Your task to perform on an android device: What's the latest video from GameTrailers? Image 0: 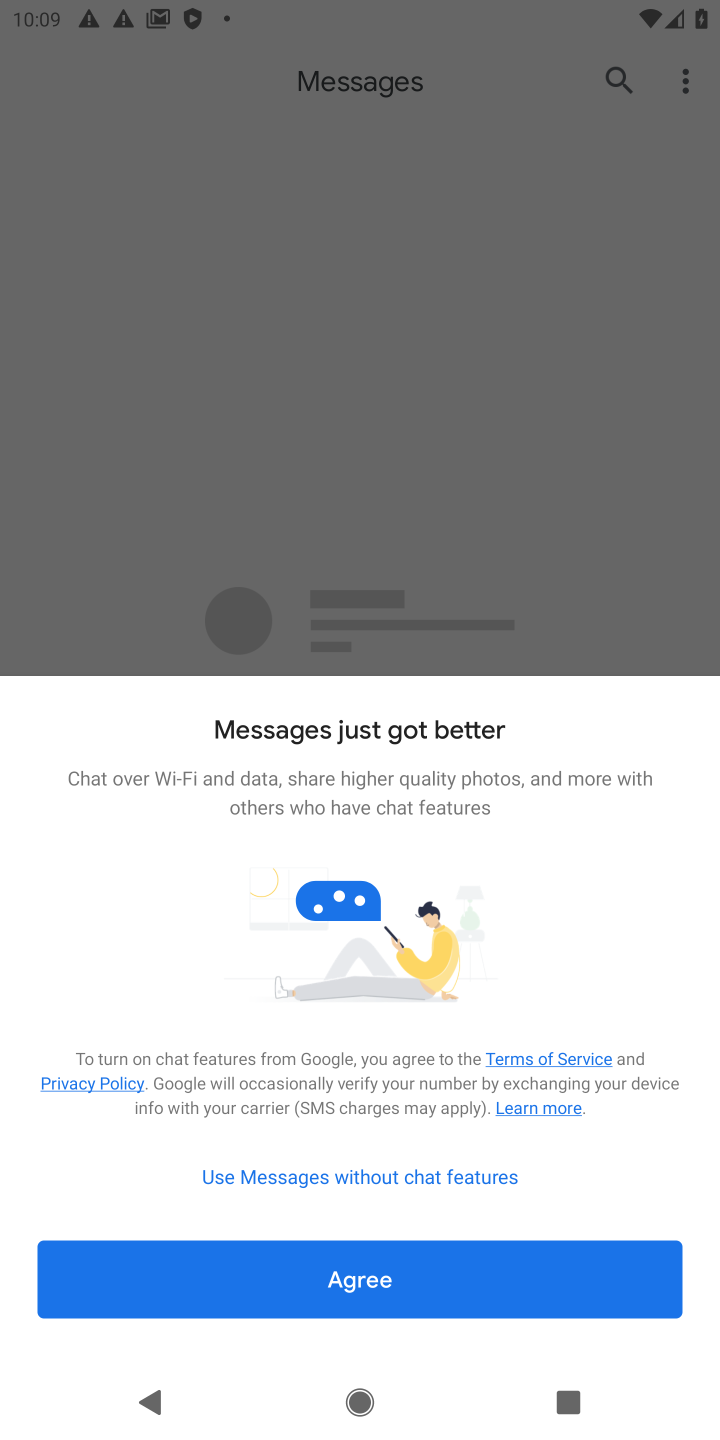
Step 0: press home button
Your task to perform on an android device: What's the latest video from GameTrailers? Image 1: 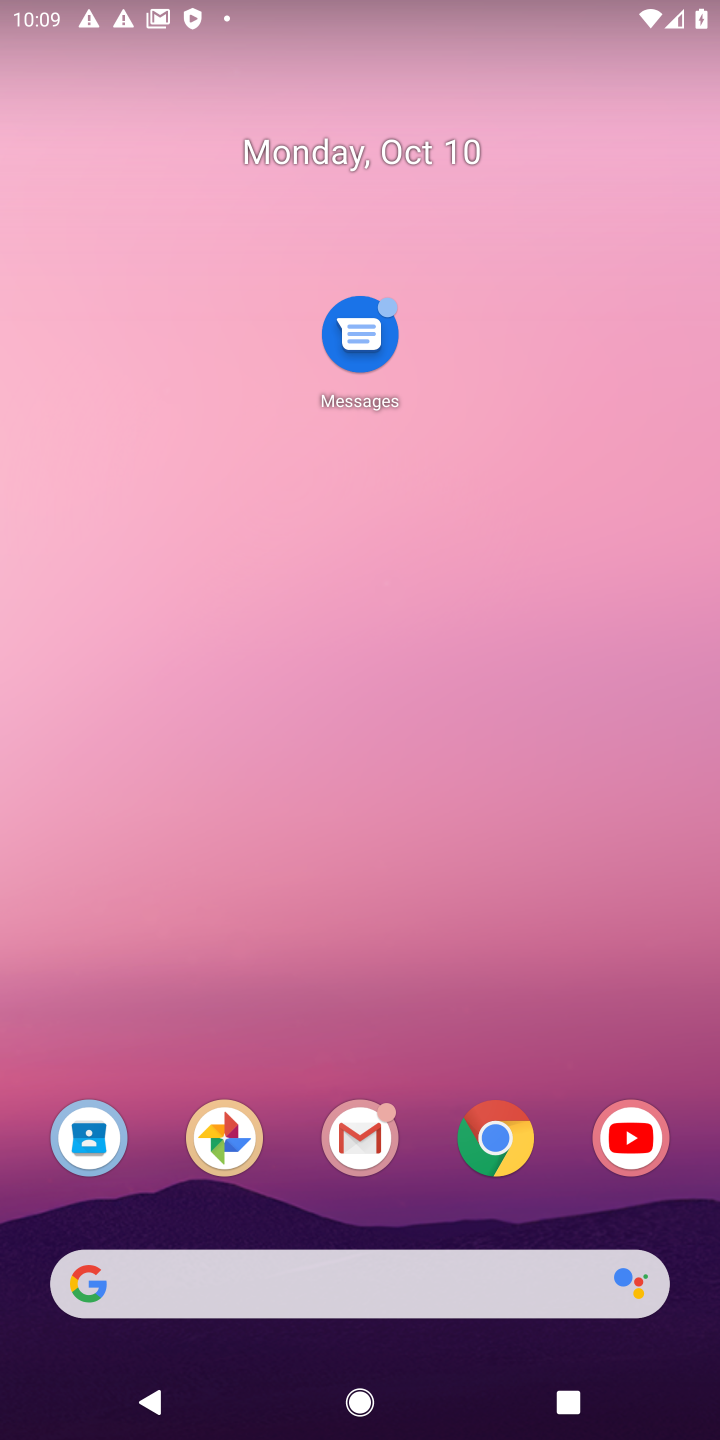
Step 1: click (499, 1136)
Your task to perform on an android device: What's the latest video from GameTrailers? Image 2: 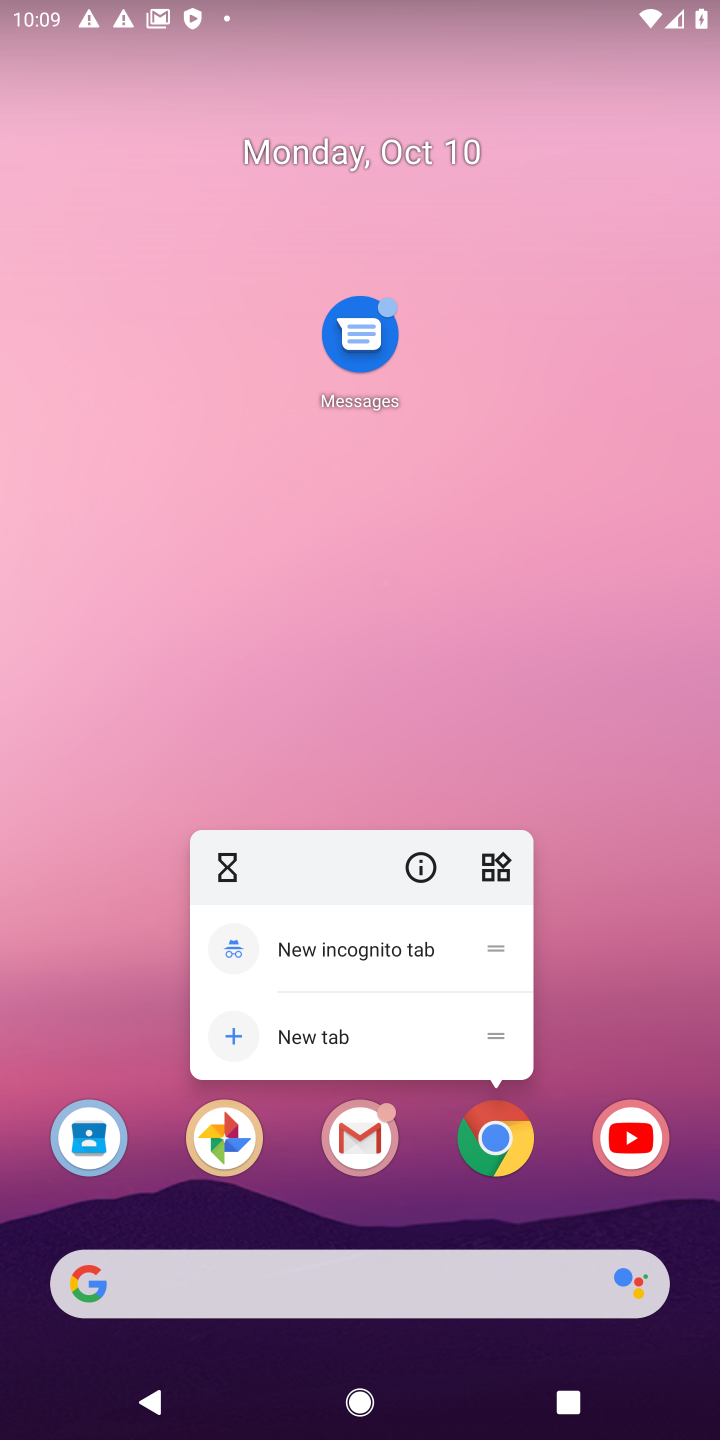
Step 2: click (487, 1151)
Your task to perform on an android device: What's the latest video from GameTrailers? Image 3: 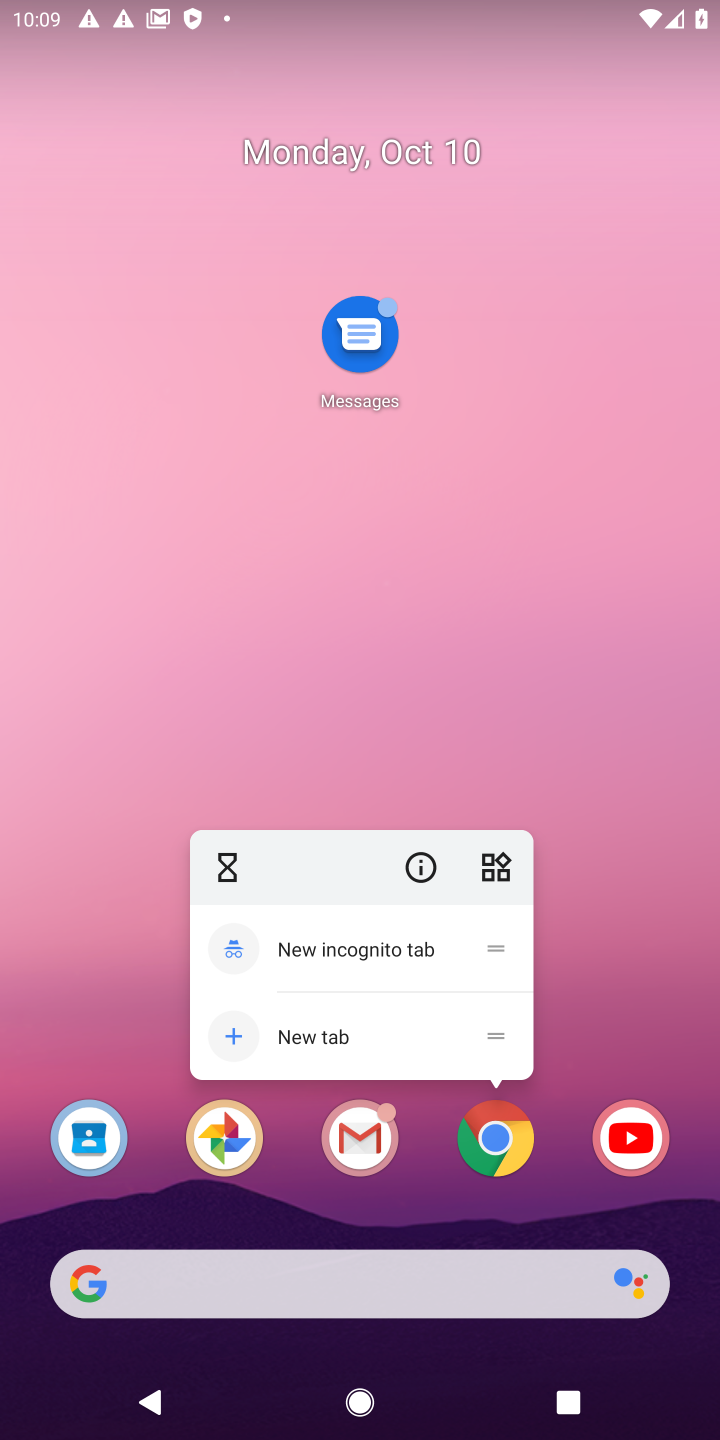
Step 3: click (502, 1141)
Your task to perform on an android device: What's the latest video from GameTrailers? Image 4: 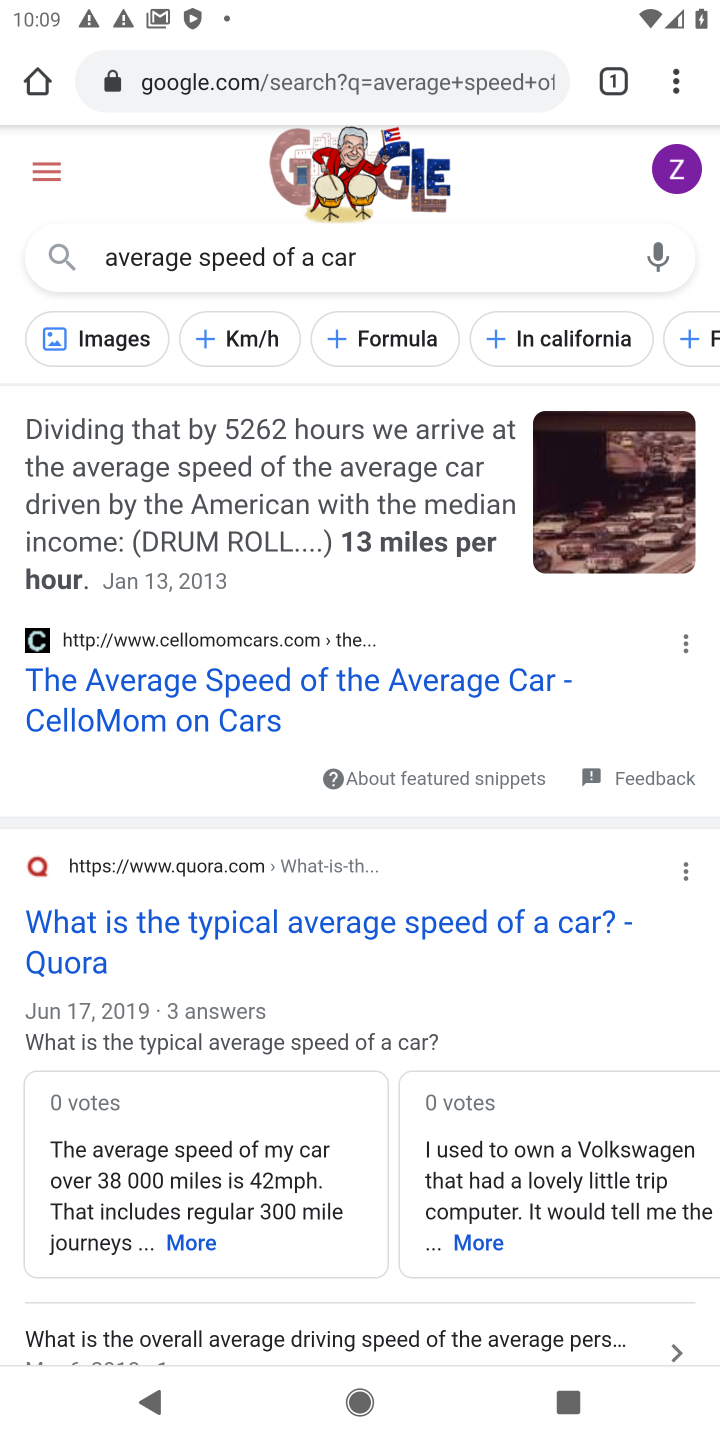
Step 4: click (388, 83)
Your task to perform on an android device: What's the latest video from GameTrailers? Image 5: 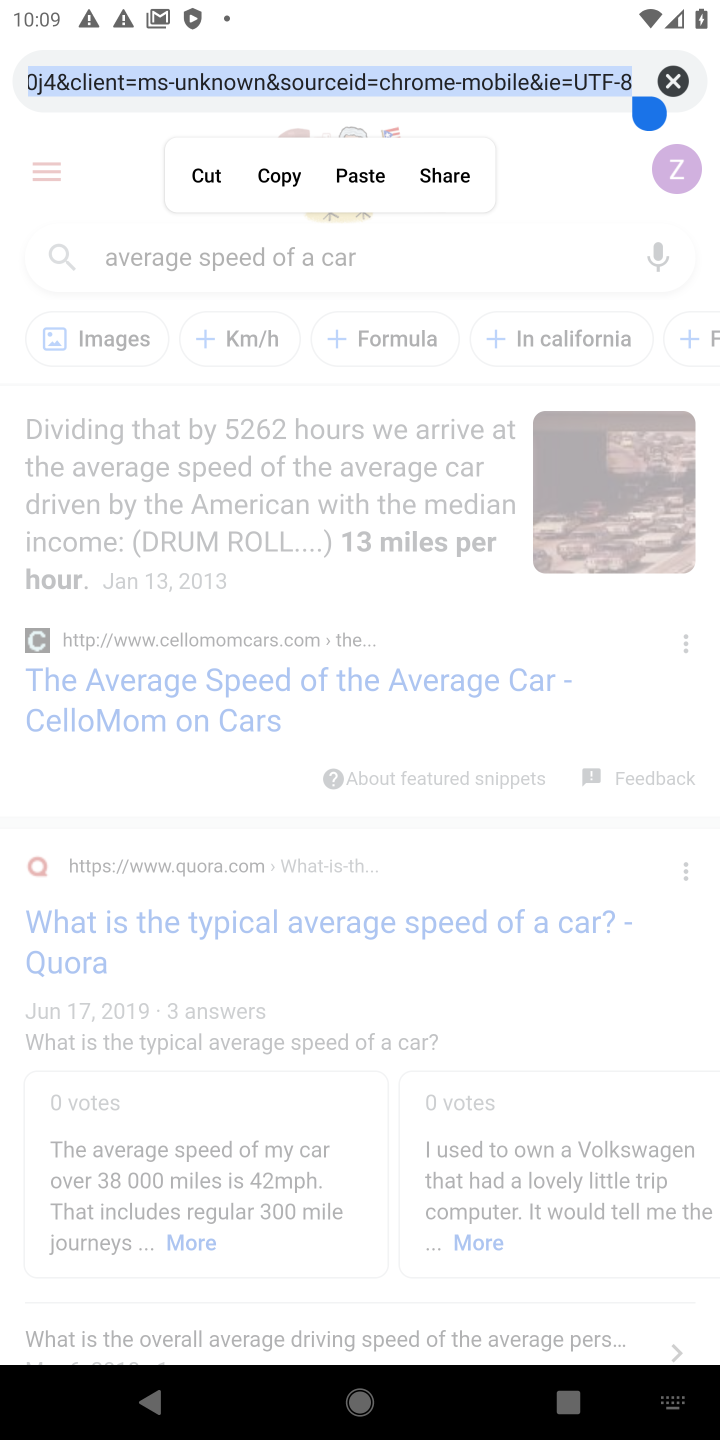
Step 5: type "game trailers"
Your task to perform on an android device: What's the latest video from GameTrailers? Image 6: 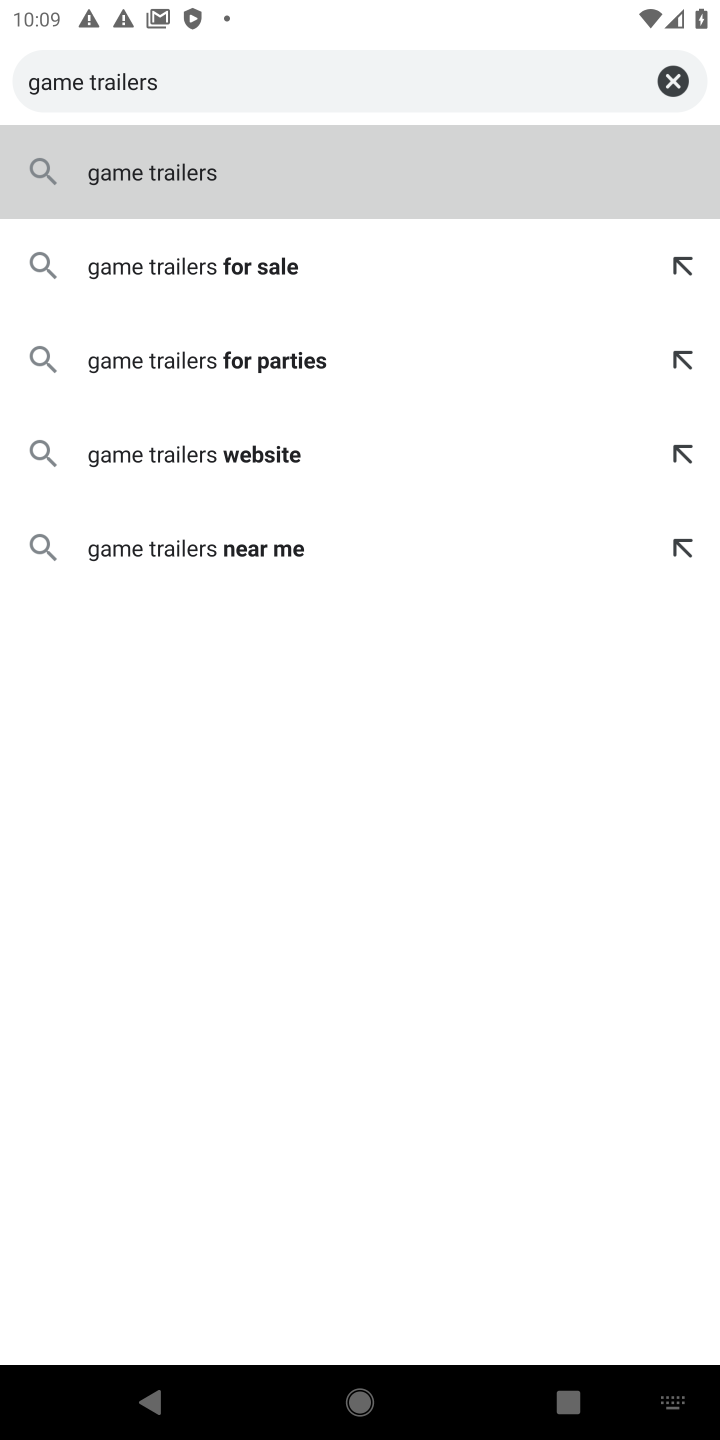
Step 6: press enter
Your task to perform on an android device: What's the latest video from GameTrailers? Image 7: 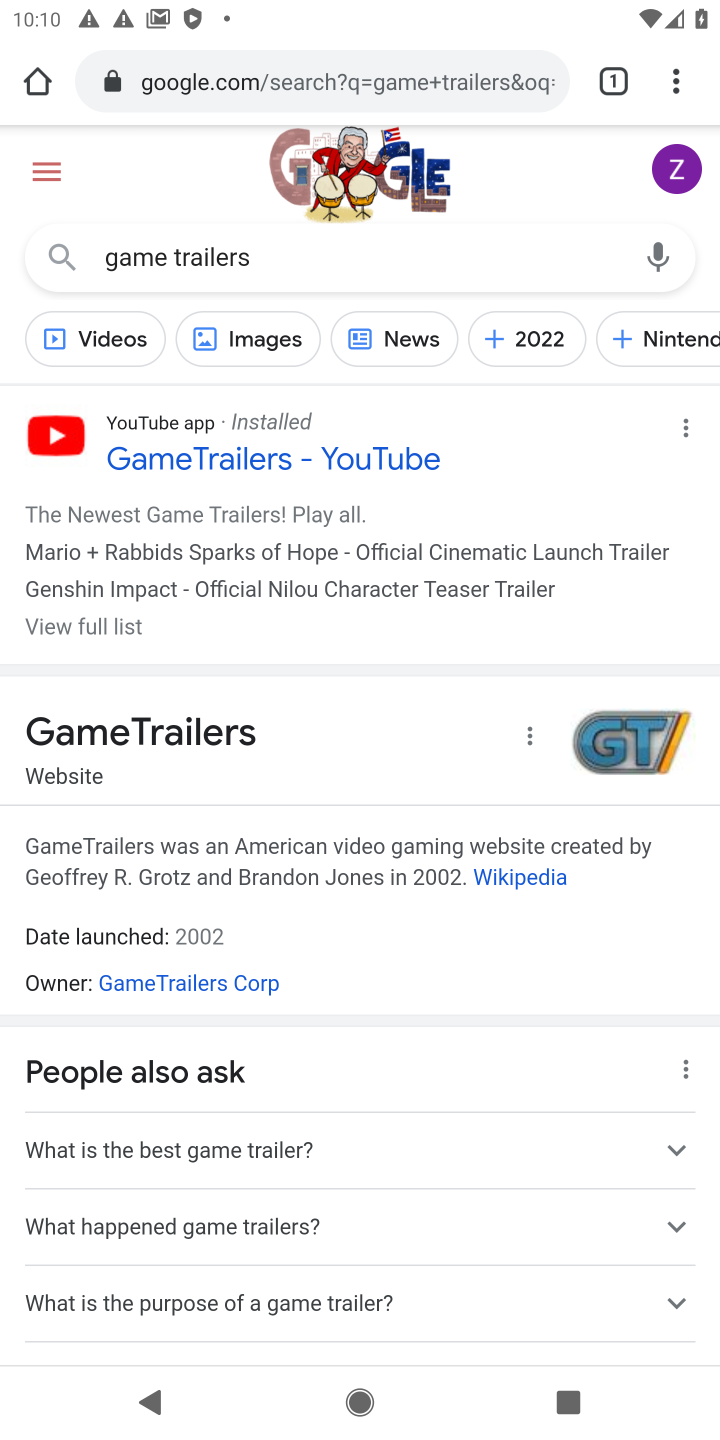
Step 7: click (357, 457)
Your task to perform on an android device: What's the latest video from GameTrailers? Image 8: 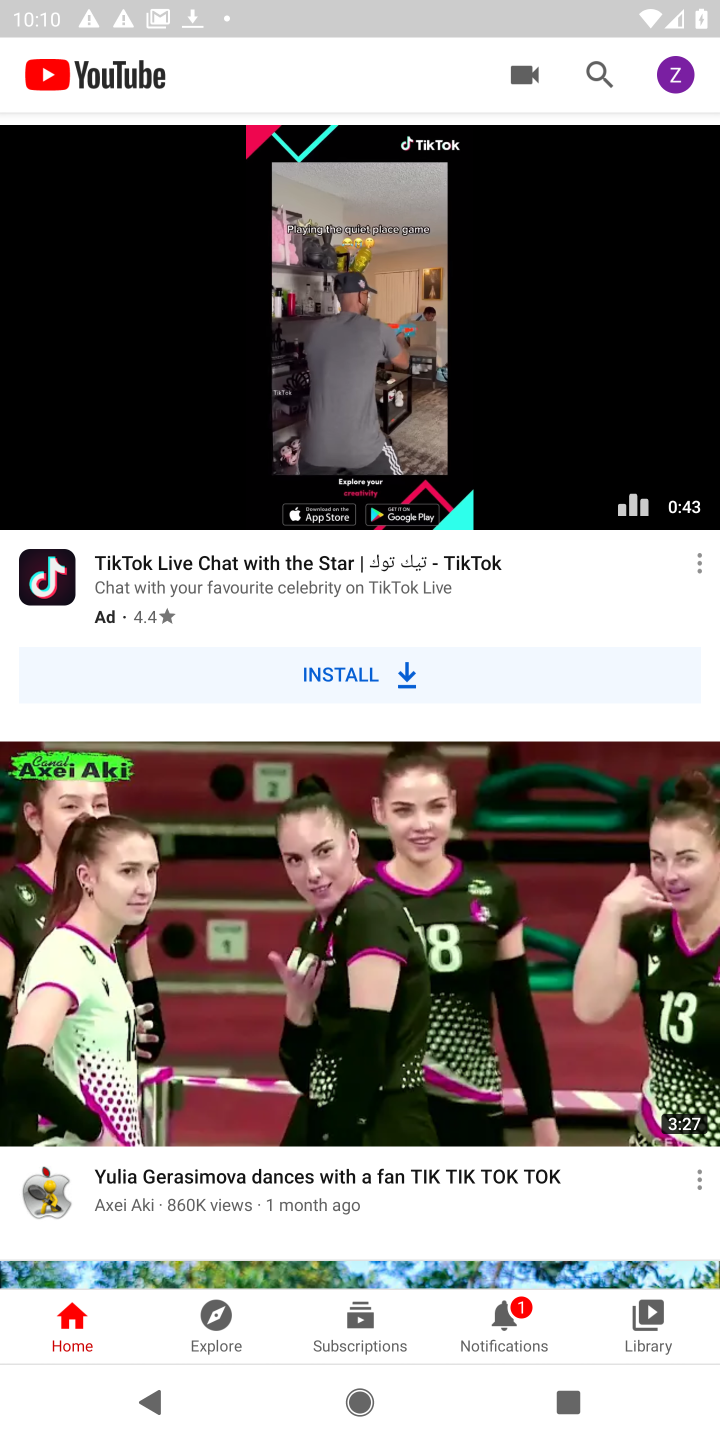
Step 8: click (598, 68)
Your task to perform on an android device: What's the latest video from GameTrailers? Image 9: 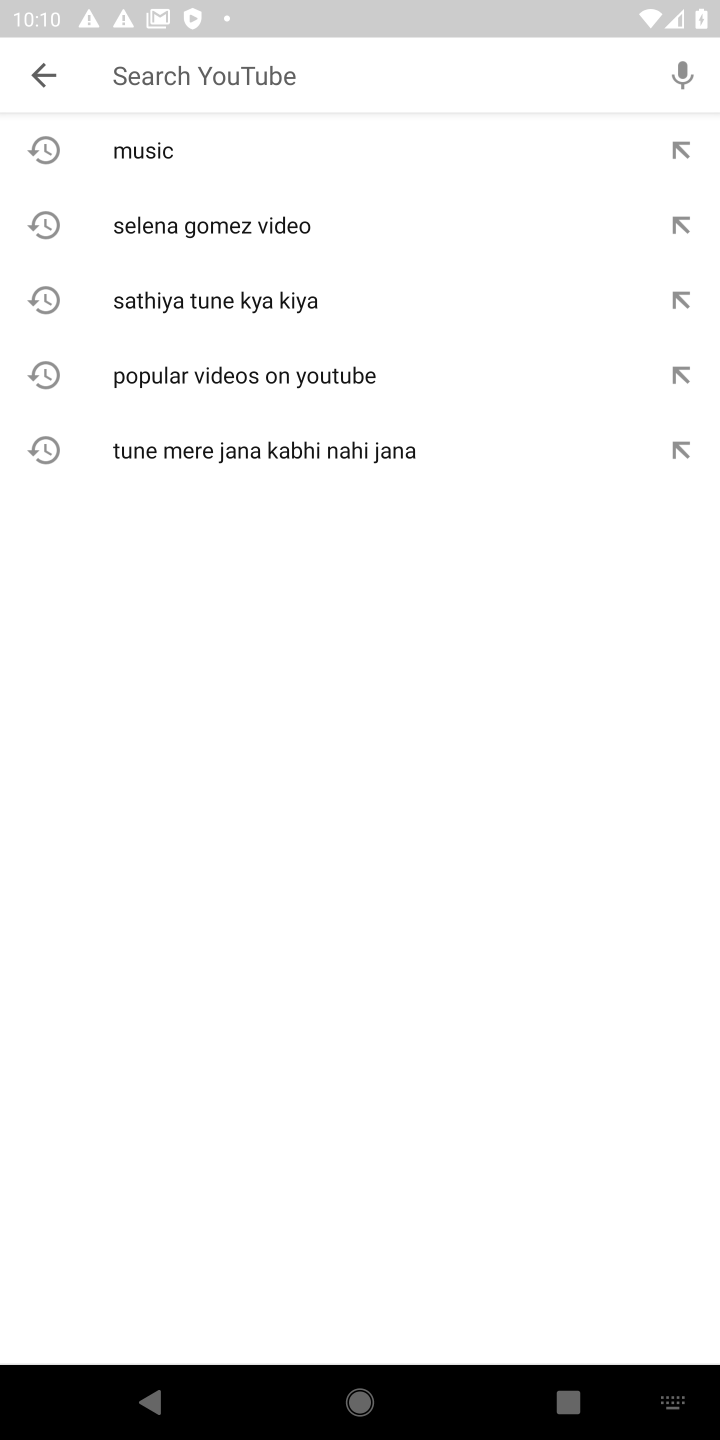
Step 9: type "game trailers"
Your task to perform on an android device: What's the latest video from GameTrailers? Image 10: 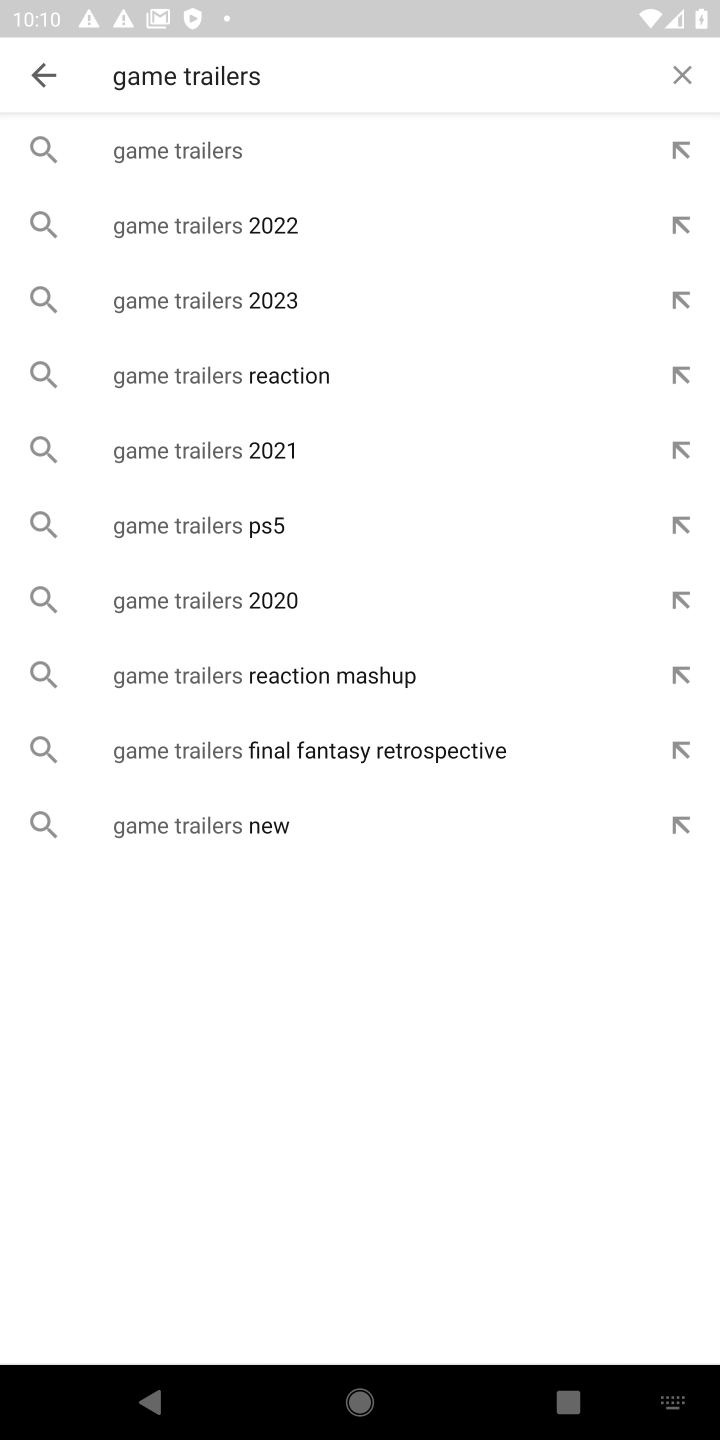
Step 10: type ""
Your task to perform on an android device: What's the latest video from GameTrailers? Image 11: 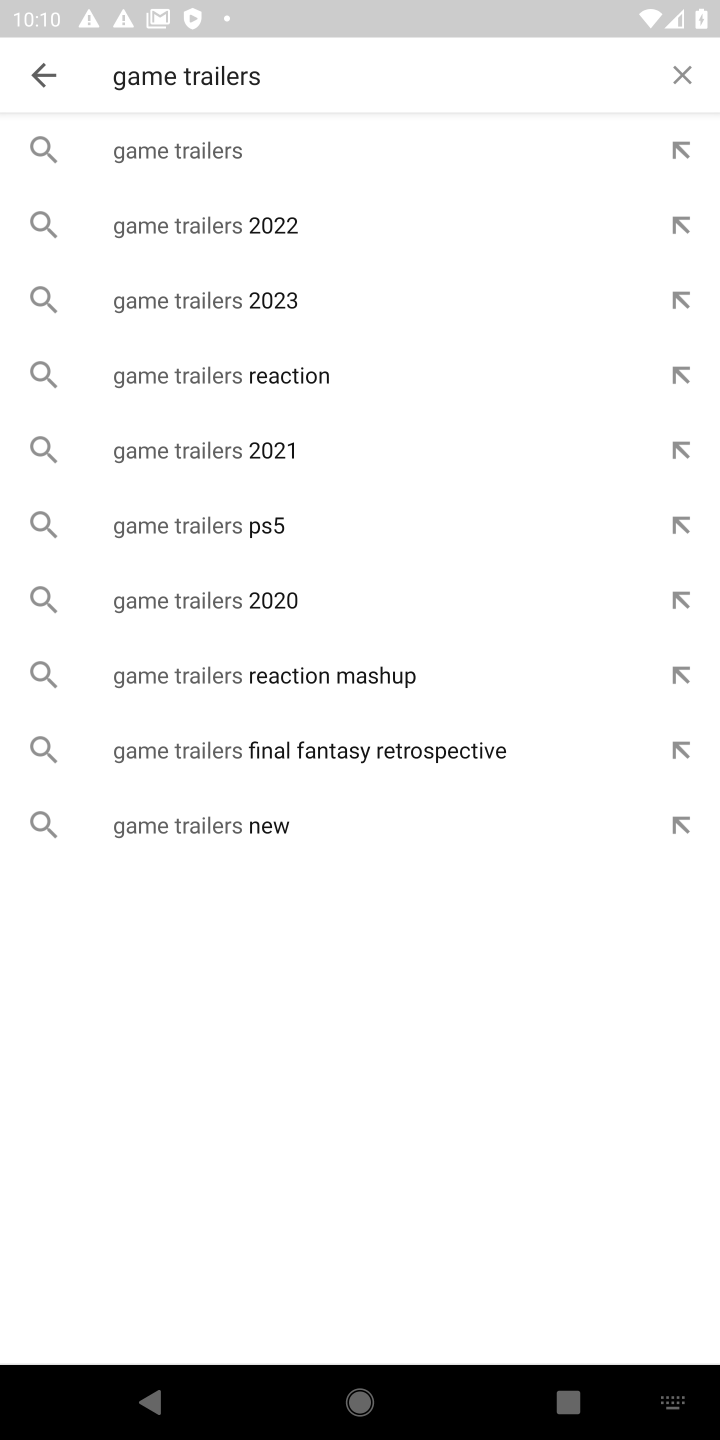
Step 11: press enter
Your task to perform on an android device: What's the latest video from GameTrailers? Image 12: 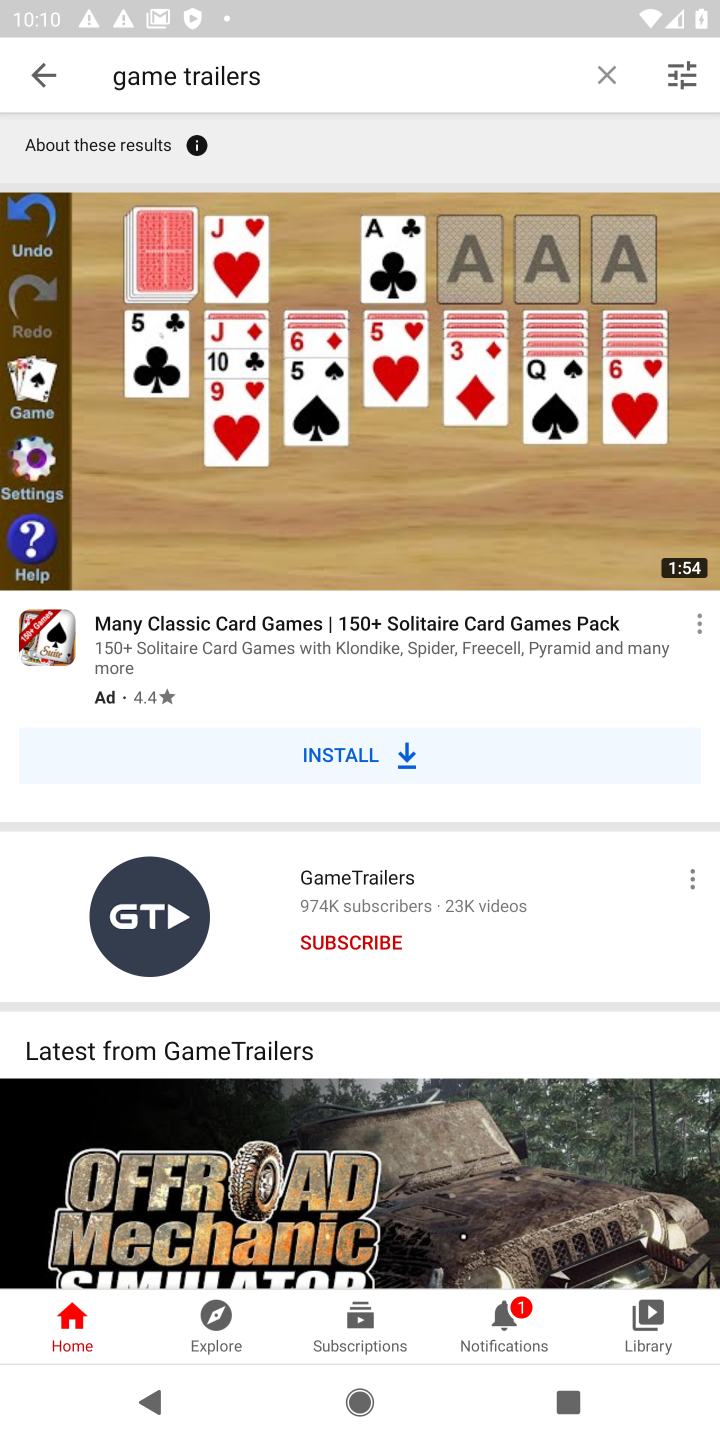
Step 12: click (368, 880)
Your task to perform on an android device: What's the latest video from GameTrailers? Image 13: 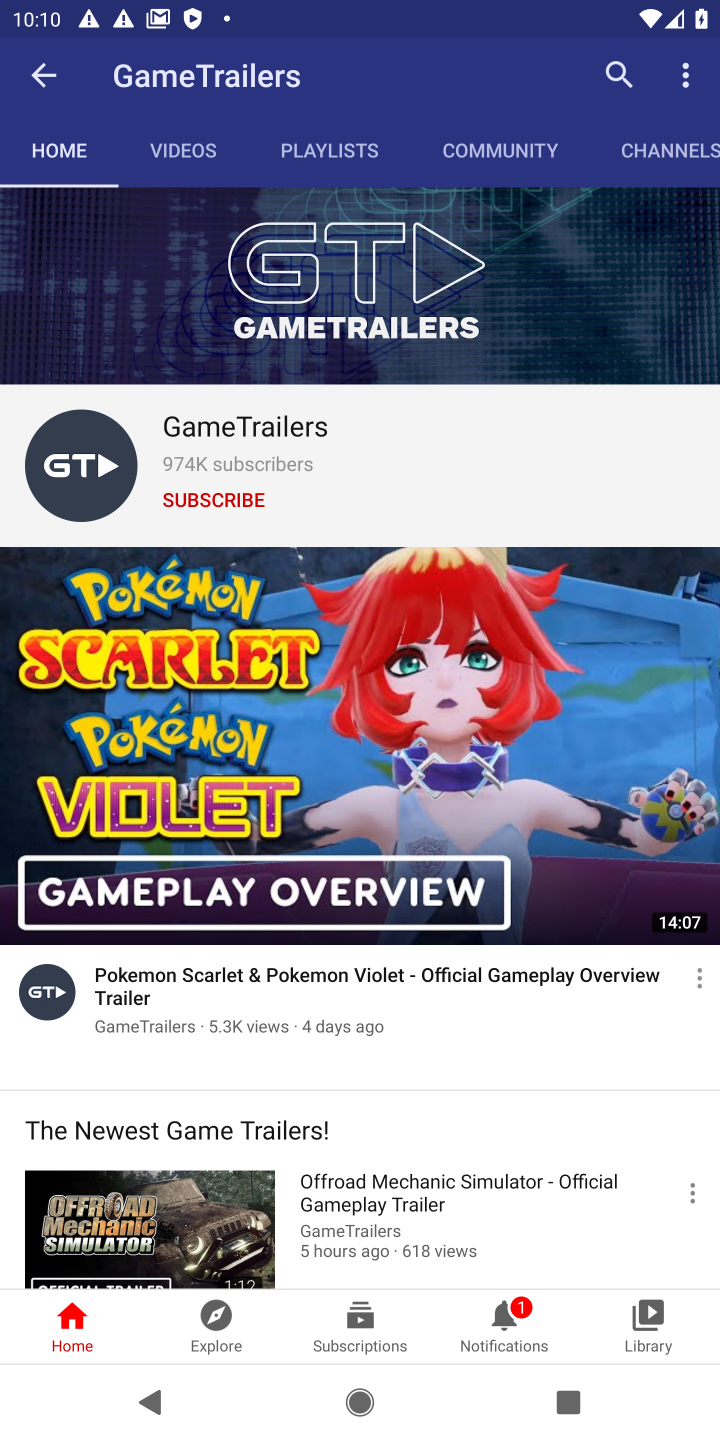
Step 13: click (211, 160)
Your task to perform on an android device: What's the latest video from GameTrailers? Image 14: 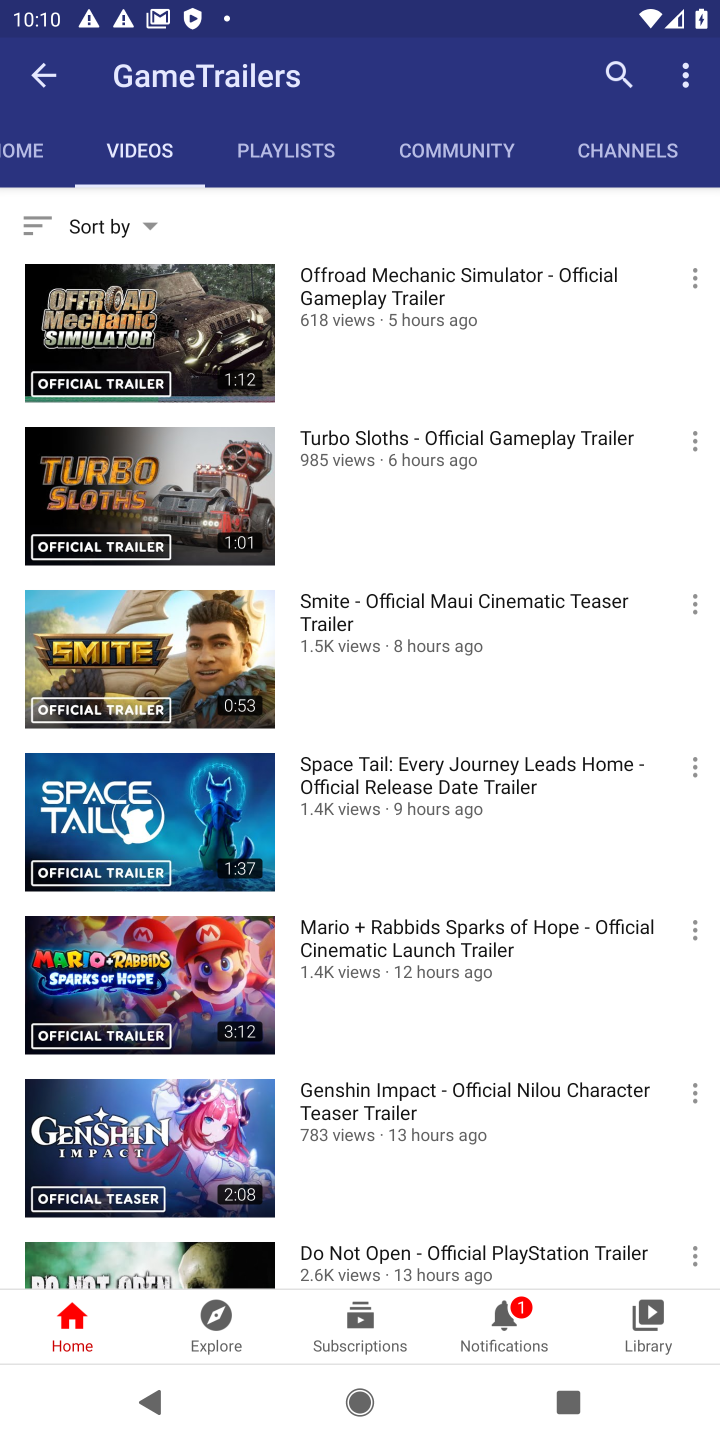
Step 14: click (328, 356)
Your task to perform on an android device: What's the latest video from GameTrailers? Image 15: 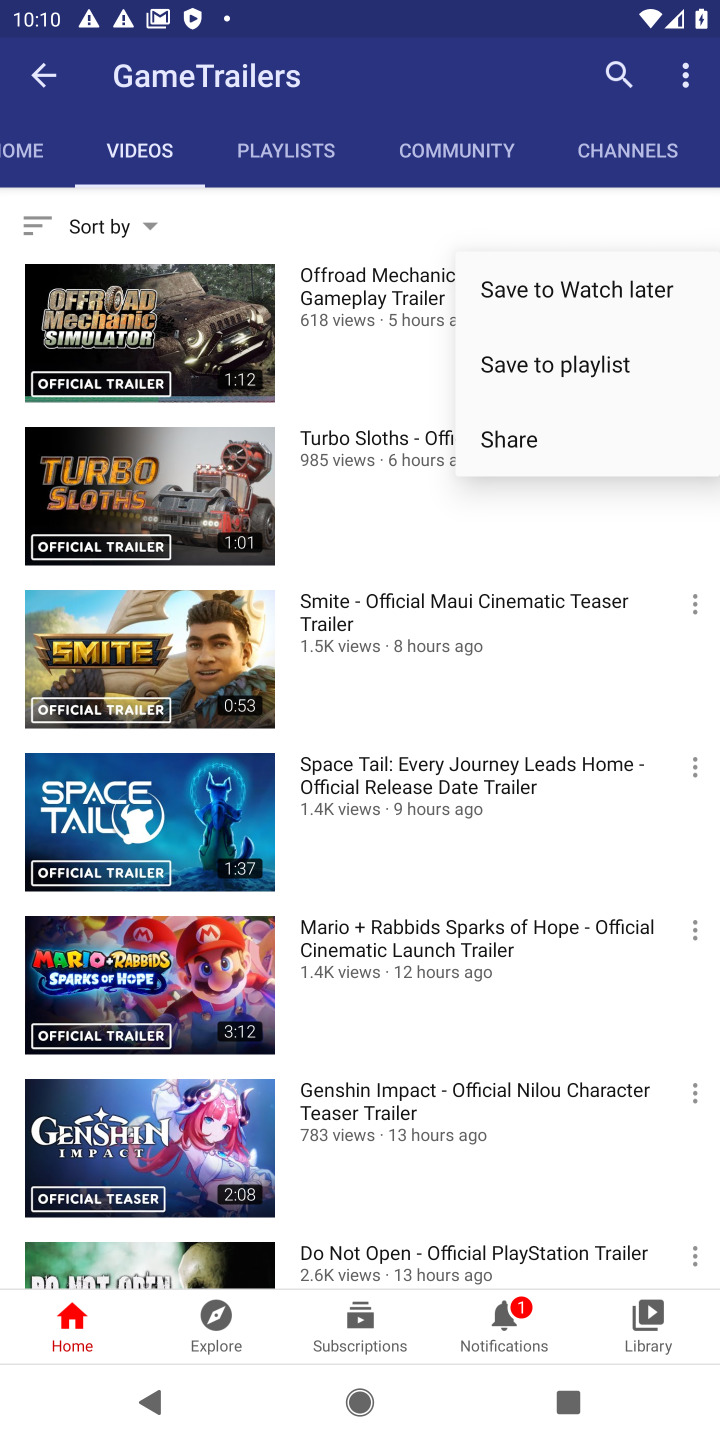
Step 15: click (167, 348)
Your task to perform on an android device: What's the latest video from GameTrailers? Image 16: 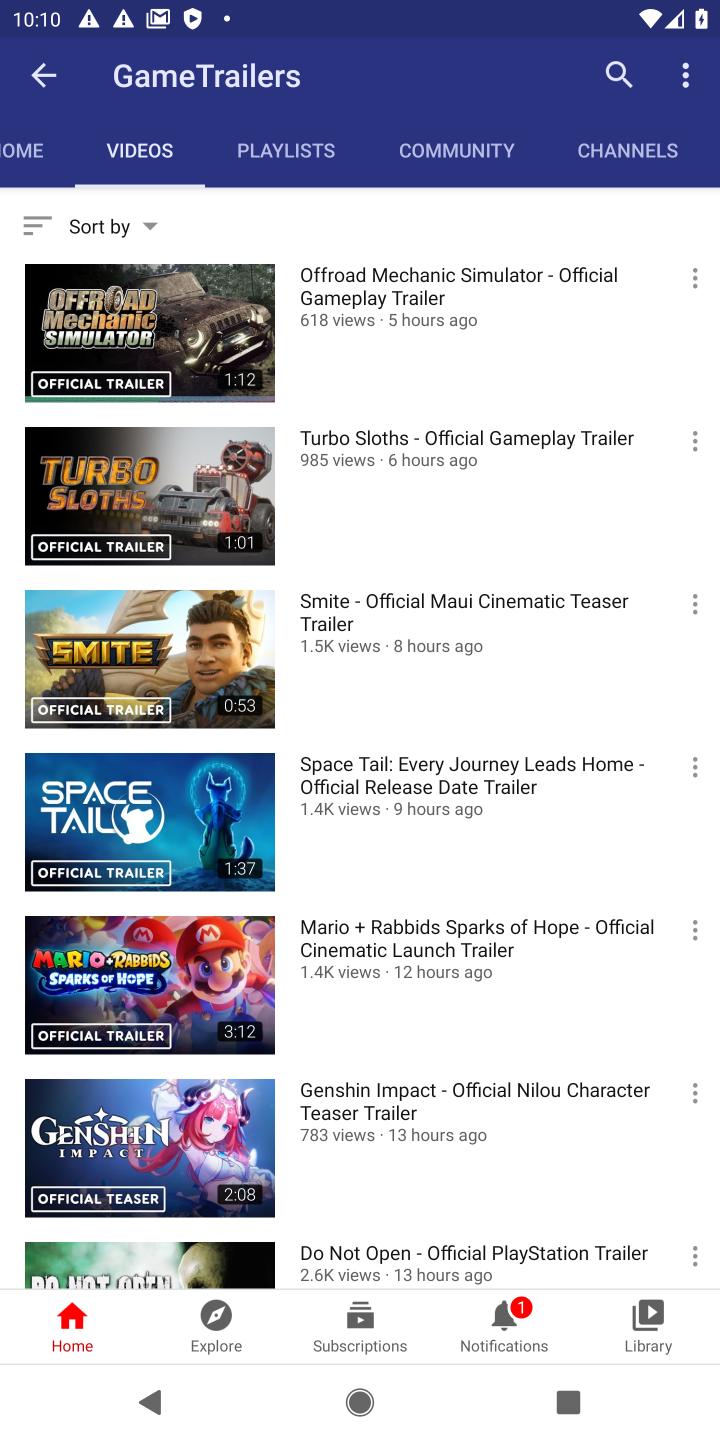
Step 16: click (139, 331)
Your task to perform on an android device: What's the latest video from GameTrailers? Image 17: 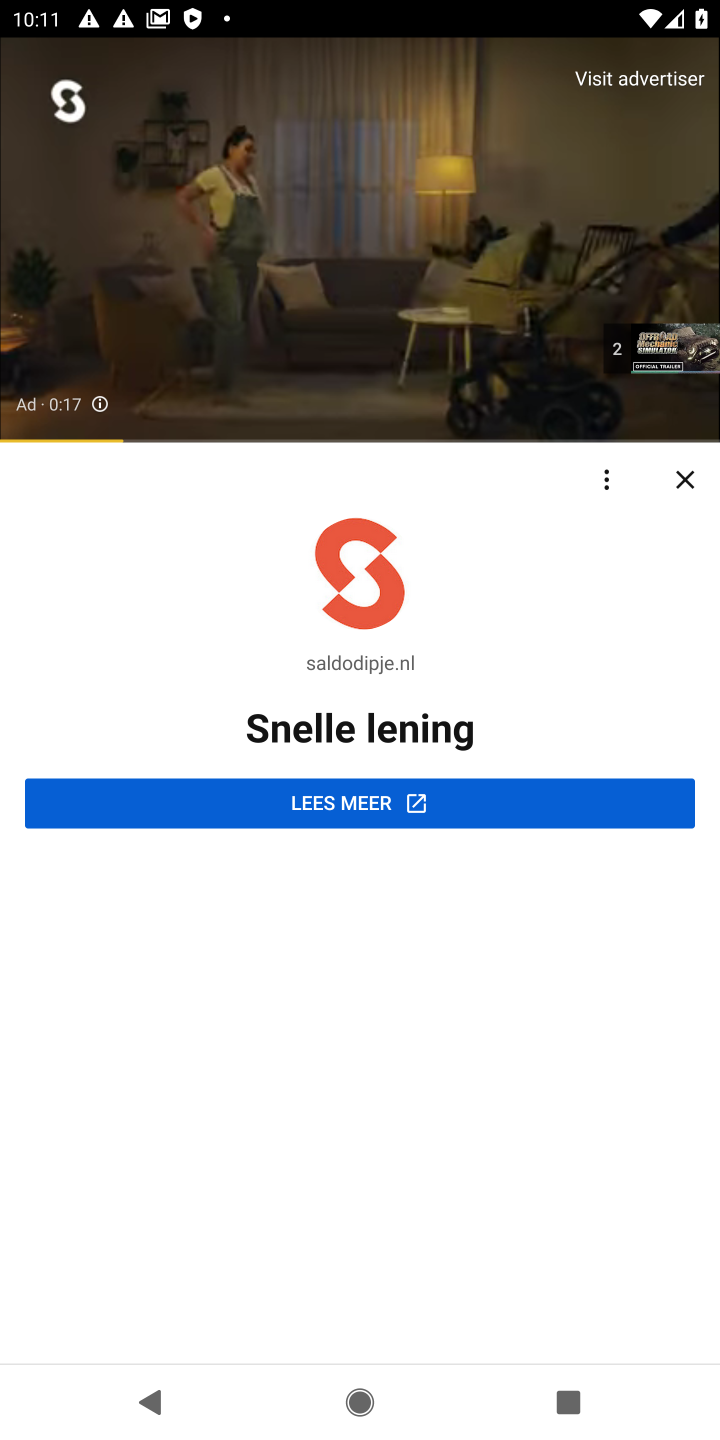
Step 17: click (686, 479)
Your task to perform on an android device: What's the latest video from GameTrailers? Image 18: 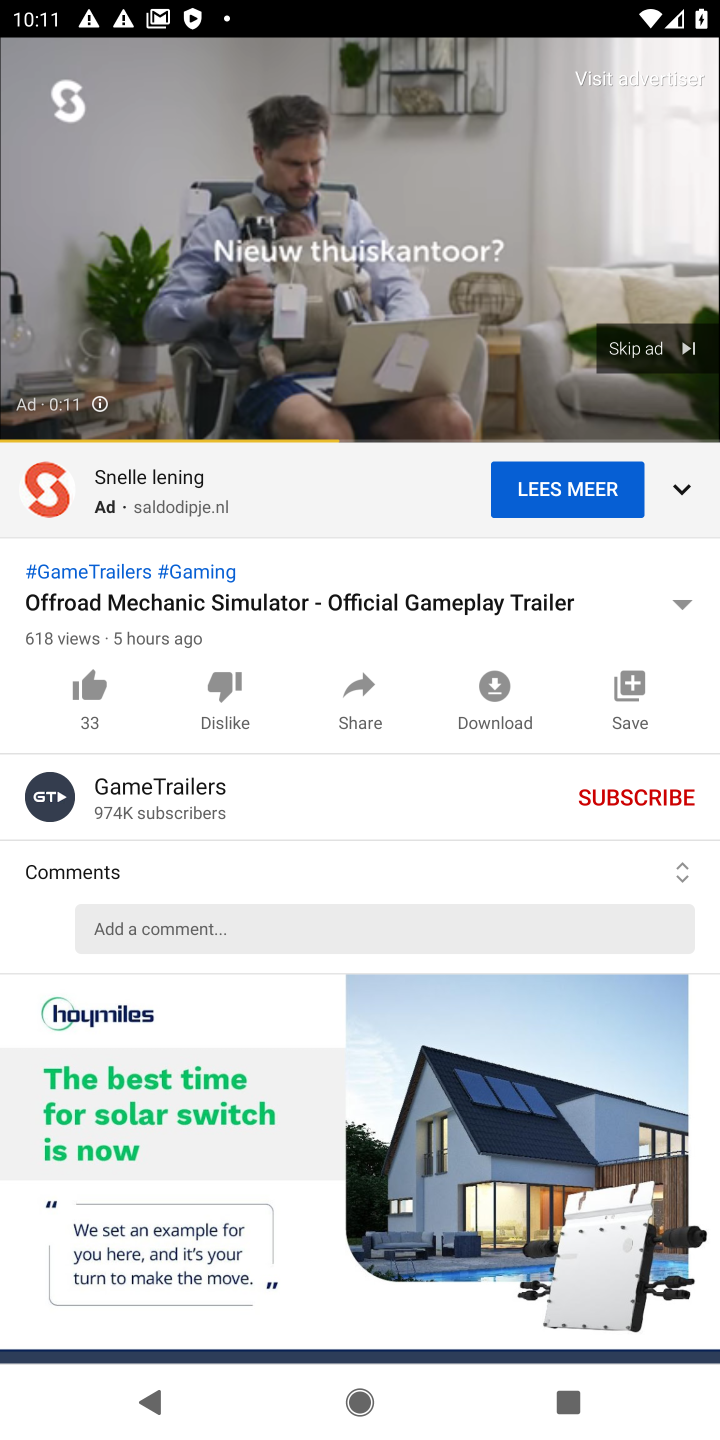
Step 18: click (667, 356)
Your task to perform on an android device: What's the latest video from GameTrailers? Image 19: 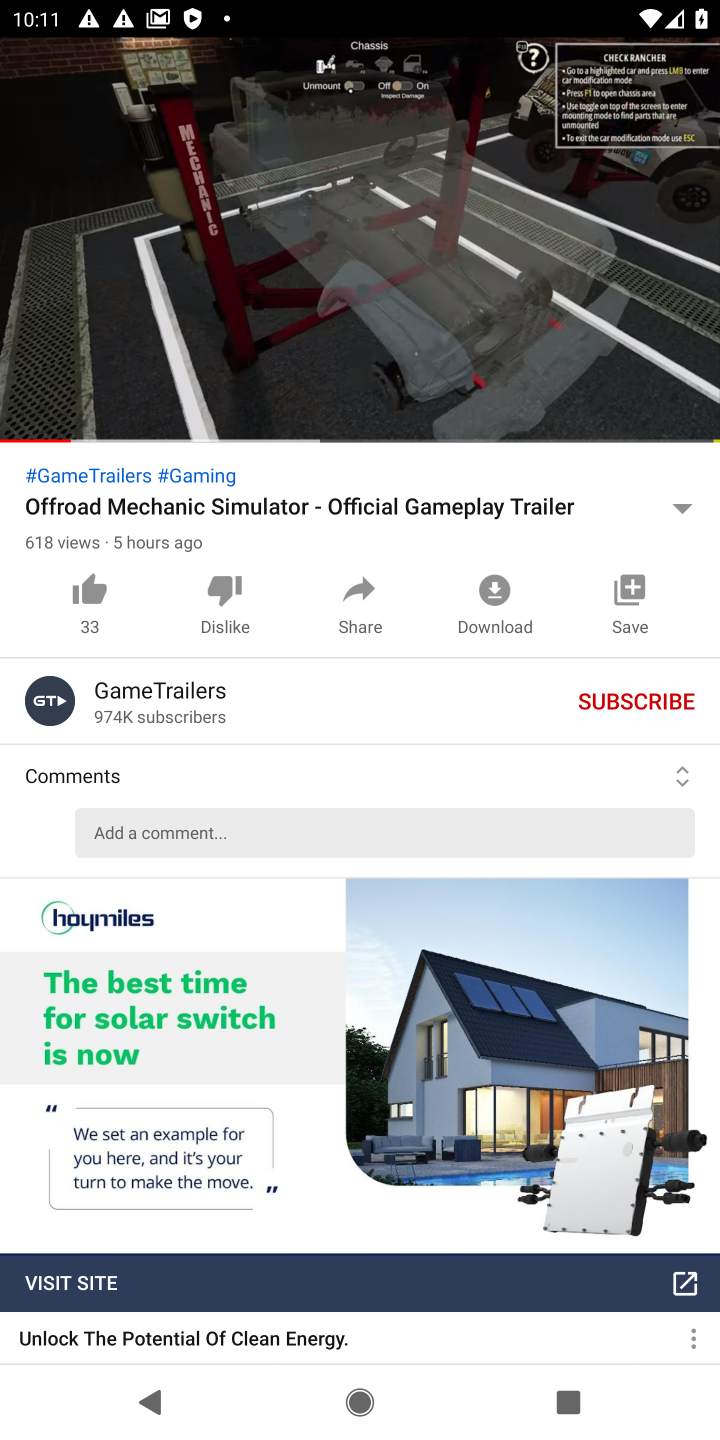
Step 19: task complete